Your task to perform on an android device: add a label to a message in the gmail app Image 0: 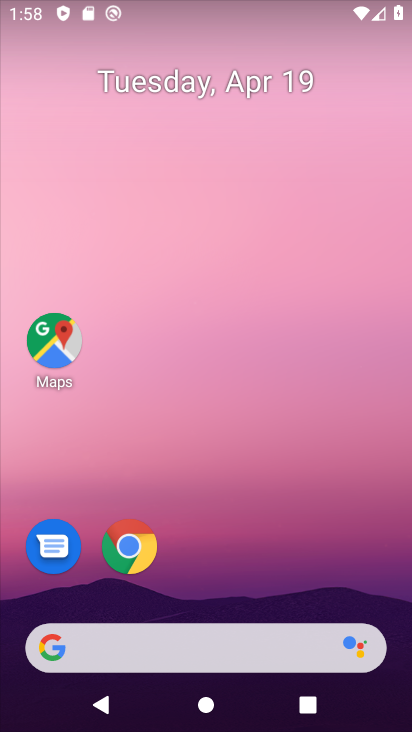
Step 0: drag from (213, 653) to (234, 164)
Your task to perform on an android device: add a label to a message in the gmail app Image 1: 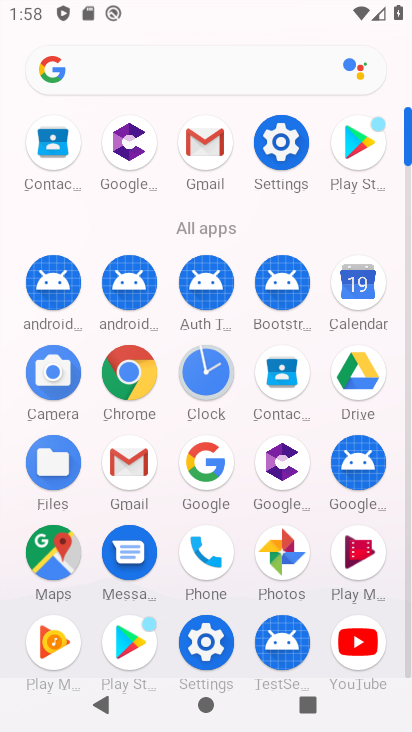
Step 1: click (137, 469)
Your task to perform on an android device: add a label to a message in the gmail app Image 2: 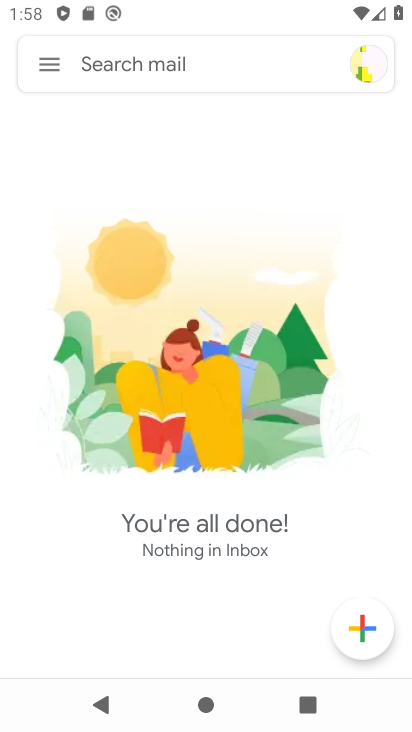
Step 2: click (51, 60)
Your task to perform on an android device: add a label to a message in the gmail app Image 3: 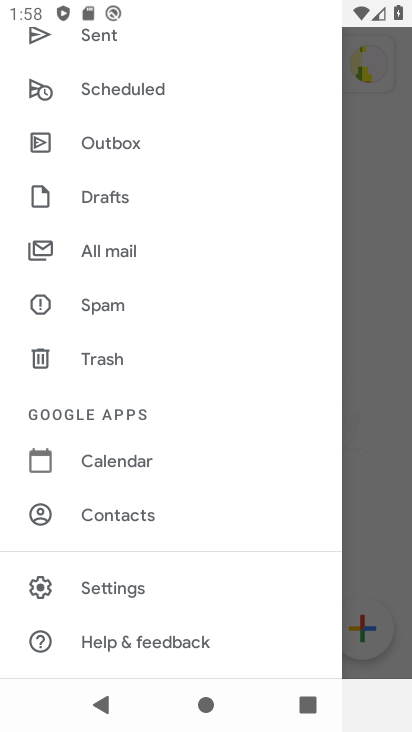
Step 3: click (121, 259)
Your task to perform on an android device: add a label to a message in the gmail app Image 4: 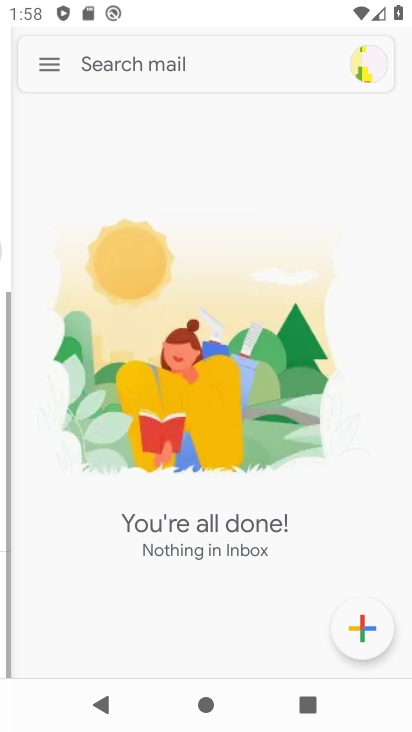
Step 4: click (121, 259)
Your task to perform on an android device: add a label to a message in the gmail app Image 5: 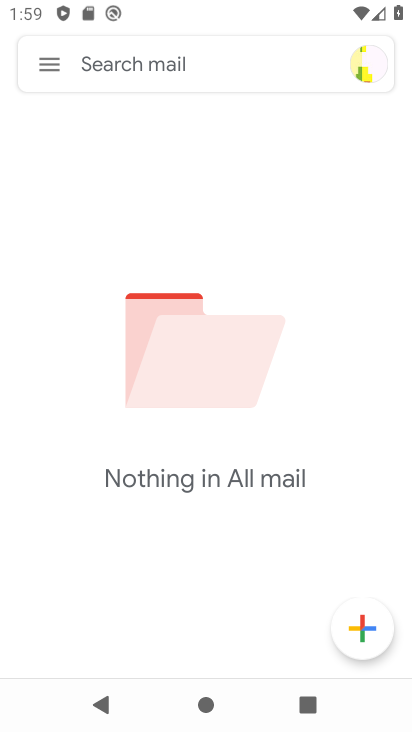
Step 5: task complete